Your task to perform on an android device: make emails show in primary in the gmail app Image 0: 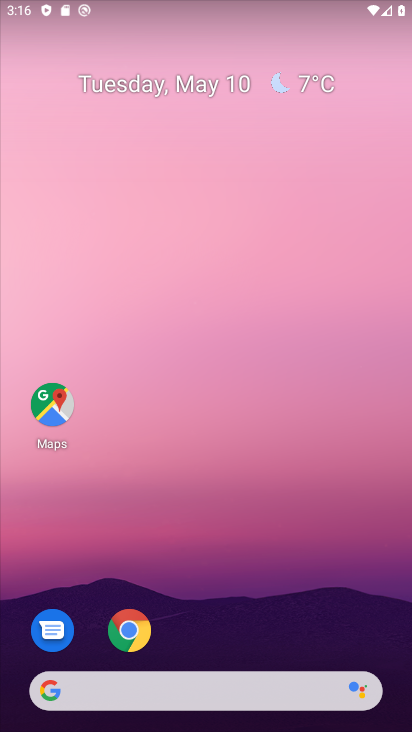
Step 0: drag from (196, 680) to (204, 296)
Your task to perform on an android device: make emails show in primary in the gmail app Image 1: 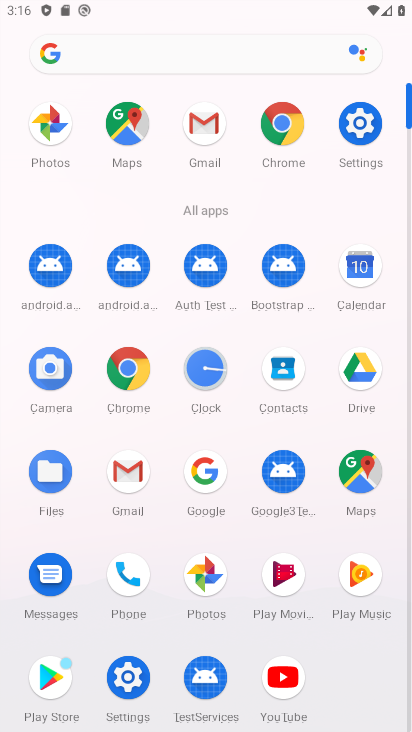
Step 1: click (139, 474)
Your task to perform on an android device: make emails show in primary in the gmail app Image 2: 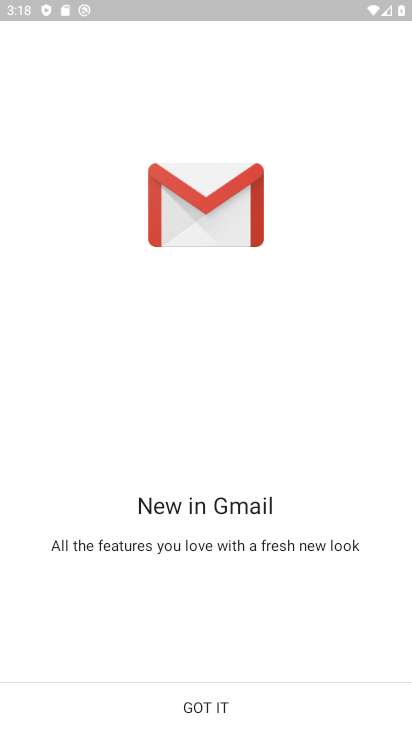
Step 2: click (221, 704)
Your task to perform on an android device: make emails show in primary in the gmail app Image 3: 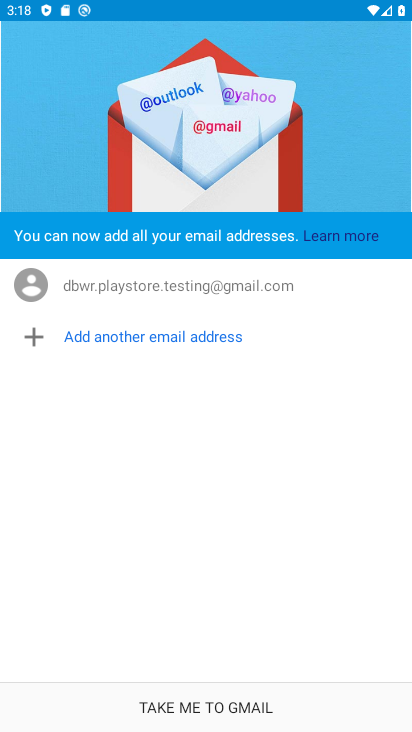
Step 3: click (216, 699)
Your task to perform on an android device: make emails show in primary in the gmail app Image 4: 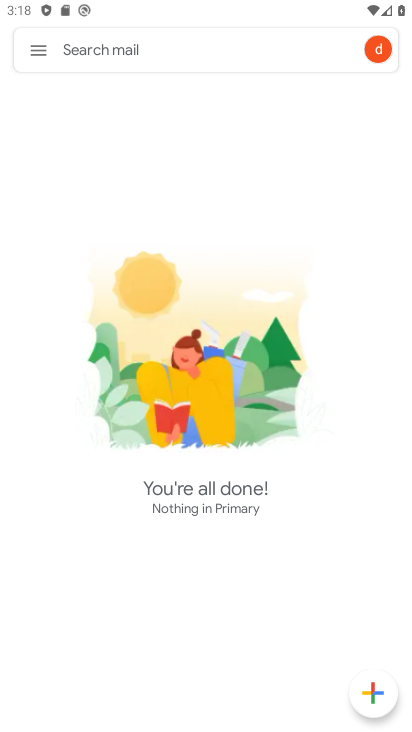
Step 4: click (35, 42)
Your task to perform on an android device: make emails show in primary in the gmail app Image 5: 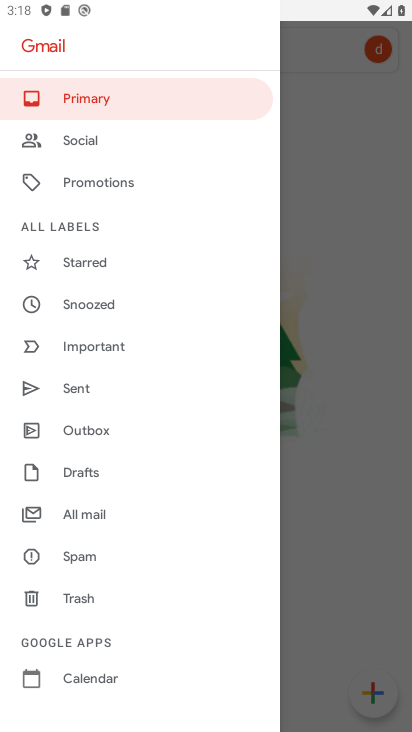
Step 5: drag from (184, 626) to (175, 119)
Your task to perform on an android device: make emails show in primary in the gmail app Image 6: 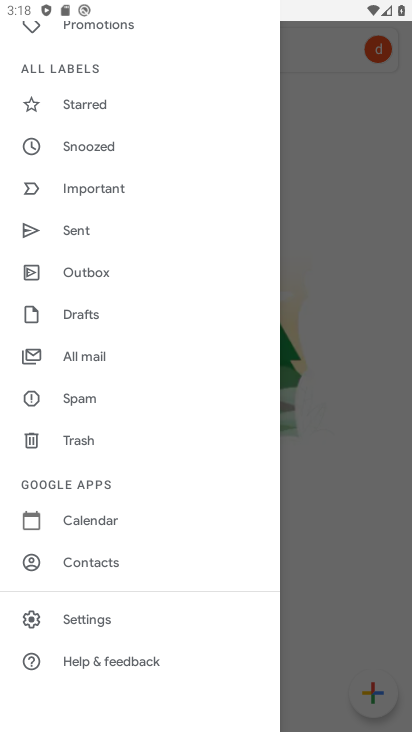
Step 6: click (105, 612)
Your task to perform on an android device: make emails show in primary in the gmail app Image 7: 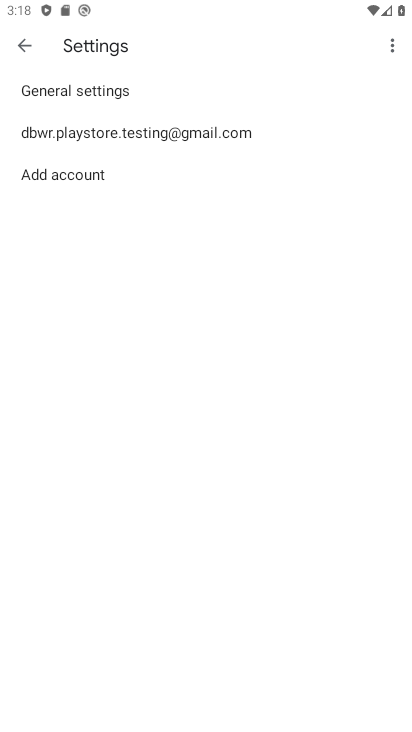
Step 7: click (103, 138)
Your task to perform on an android device: make emails show in primary in the gmail app Image 8: 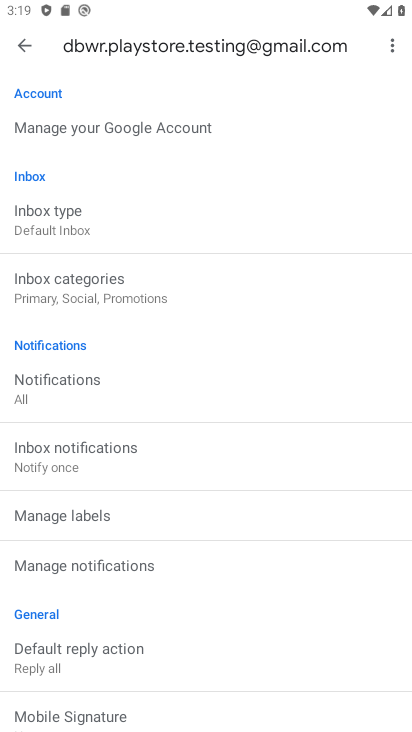
Step 8: click (97, 289)
Your task to perform on an android device: make emails show in primary in the gmail app Image 9: 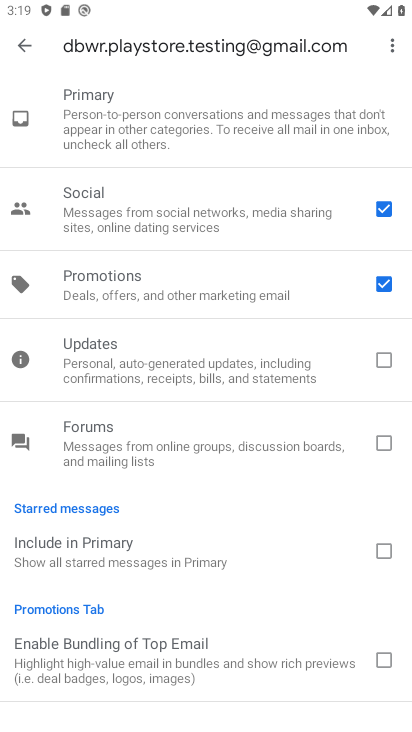
Step 9: click (381, 210)
Your task to perform on an android device: make emails show in primary in the gmail app Image 10: 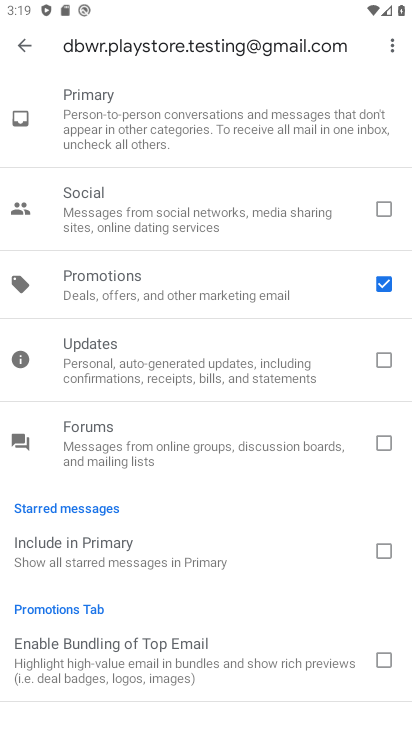
Step 10: click (391, 295)
Your task to perform on an android device: make emails show in primary in the gmail app Image 11: 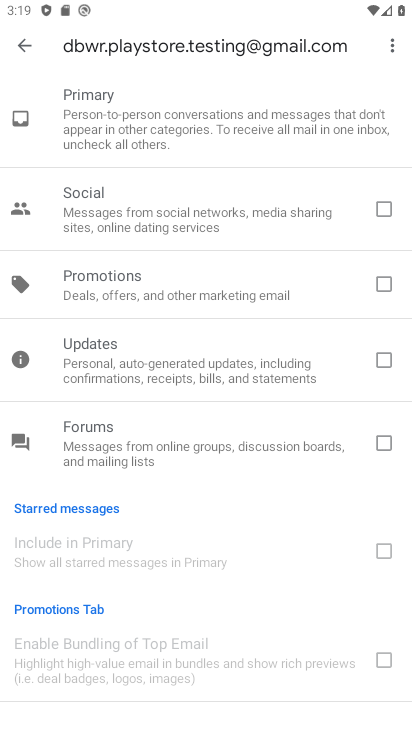
Step 11: task complete